Your task to perform on an android device: Go to notification settings Image 0: 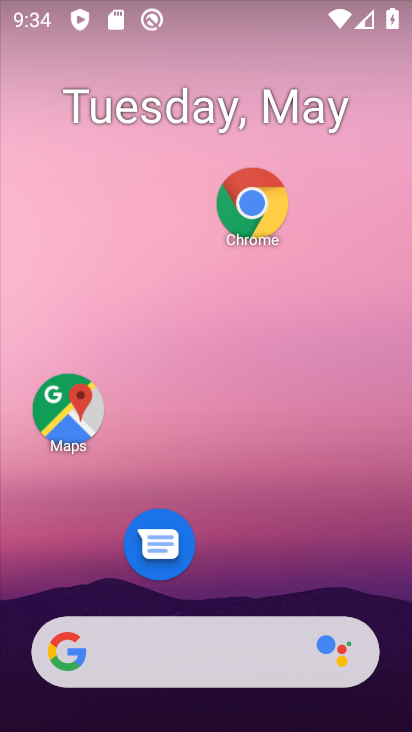
Step 0: drag from (376, 606) to (351, 111)
Your task to perform on an android device: Go to notification settings Image 1: 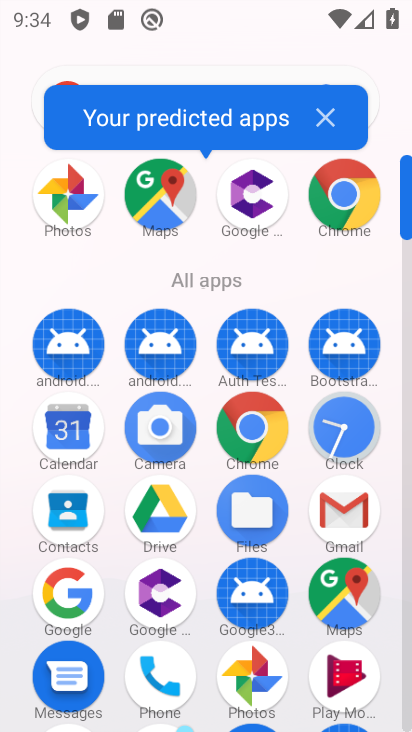
Step 1: click (407, 710)
Your task to perform on an android device: Go to notification settings Image 2: 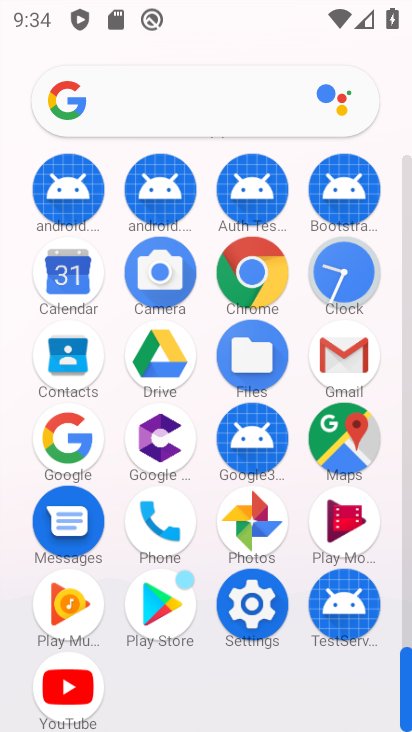
Step 2: click (251, 603)
Your task to perform on an android device: Go to notification settings Image 3: 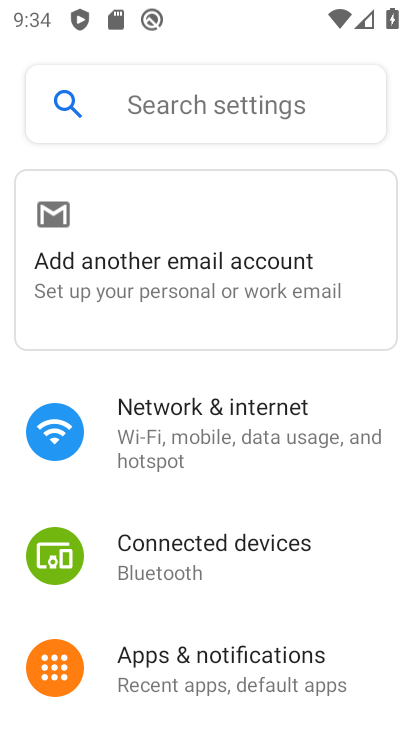
Step 3: drag from (264, 657) to (236, 387)
Your task to perform on an android device: Go to notification settings Image 4: 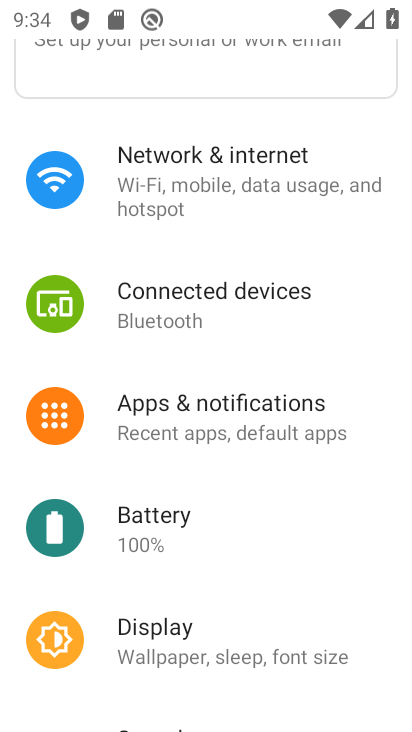
Step 4: click (247, 407)
Your task to perform on an android device: Go to notification settings Image 5: 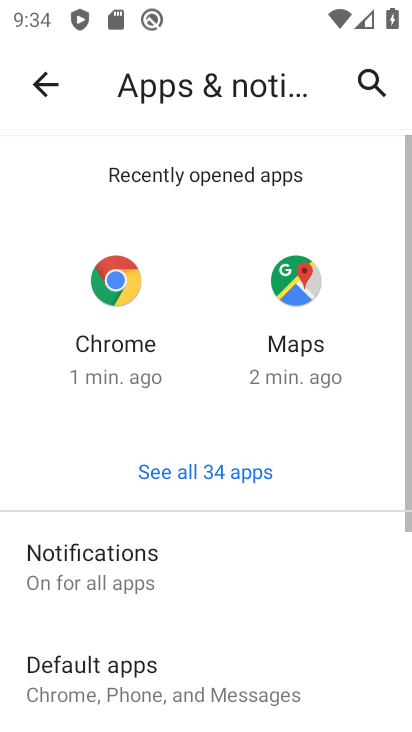
Step 5: click (270, 567)
Your task to perform on an android device: Go to notification settings Image 6: 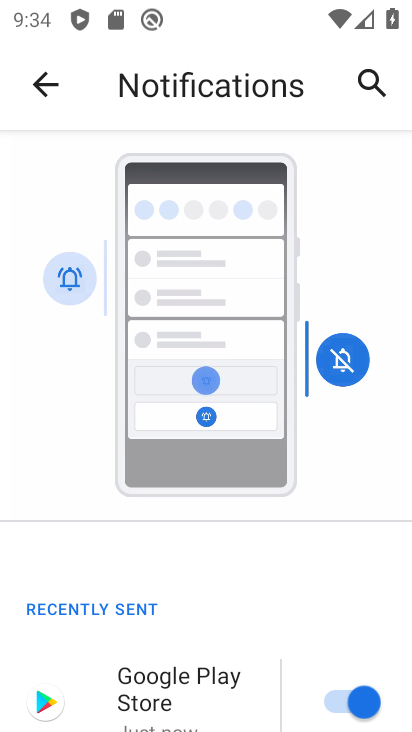
Step 6: task complete